Your task to perform on an android device: turn notification dots on Image 0: 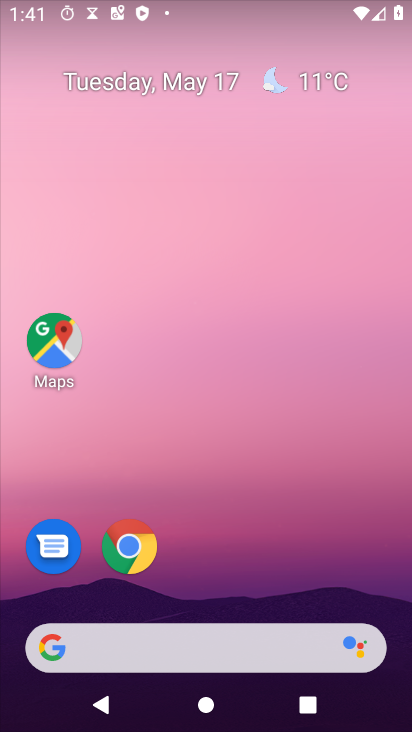
Step 0: press home button
Your task to perform on an android device: turn notification dots on Image 1: 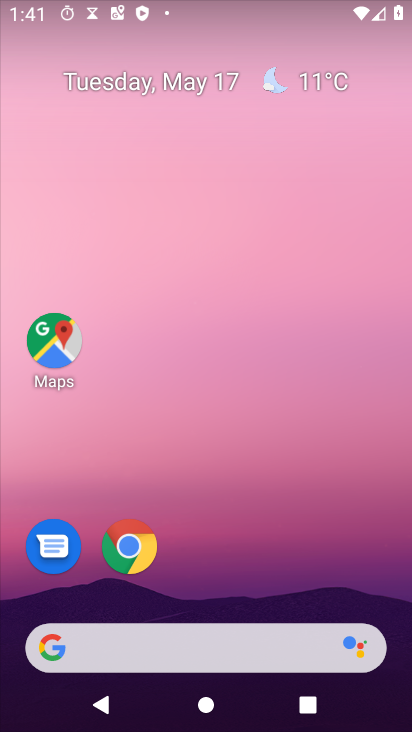
Step 1: drag from (154, 643) to (291, 95)
Your task to perform on an android device: turn notification dots on Image 2: 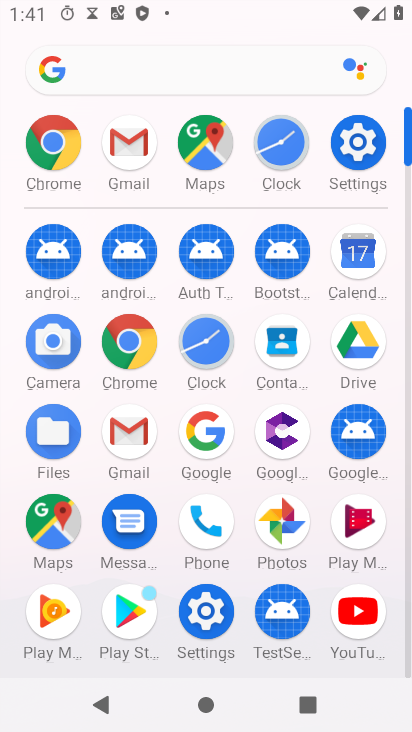
Step 2: click (370, 156)
Your task to perform on an android device: turn notification dots on Image 3: 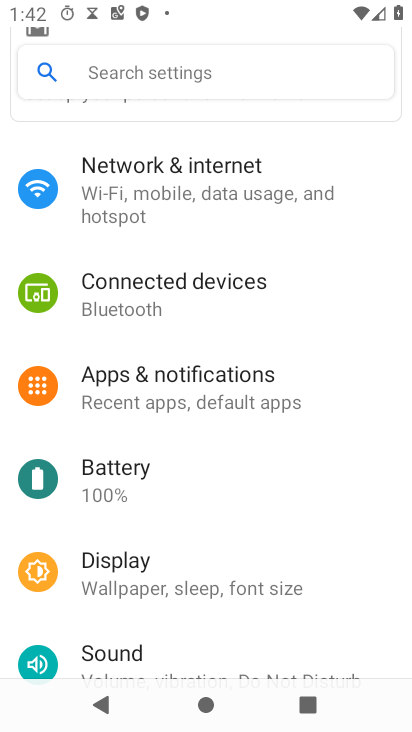
Step 3: click (226, 387)
Your task to perform on an android device: turn notification dots on Image 4: 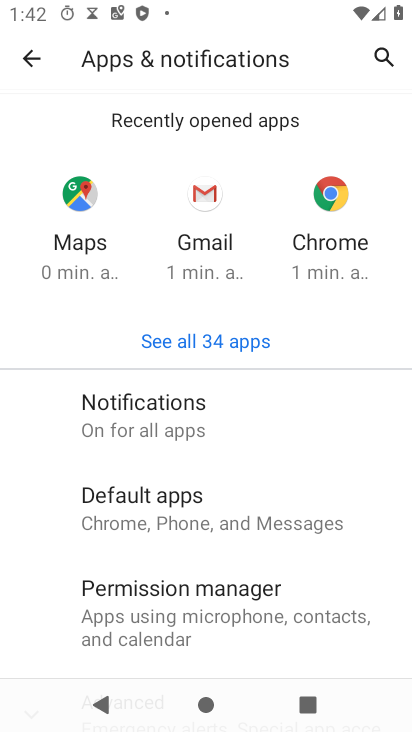
Step 4: click (184, 420)
Your task to perform on an android device: turn notification dots on Image 5: 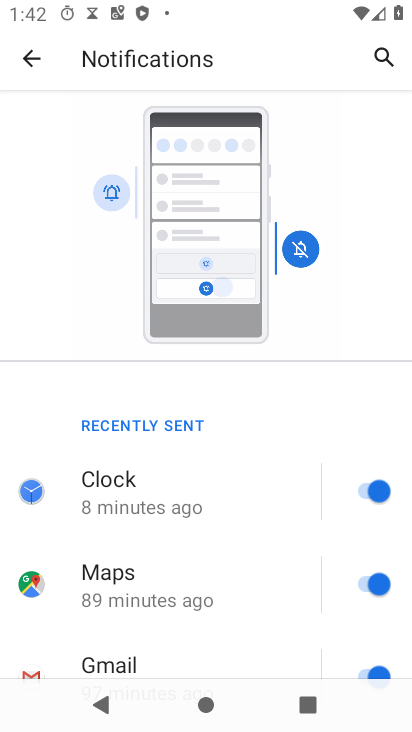
Step 5: drag from (226, 604) to (346, 56)
Your task to perform on an android device: turn notification dots on Image 6: 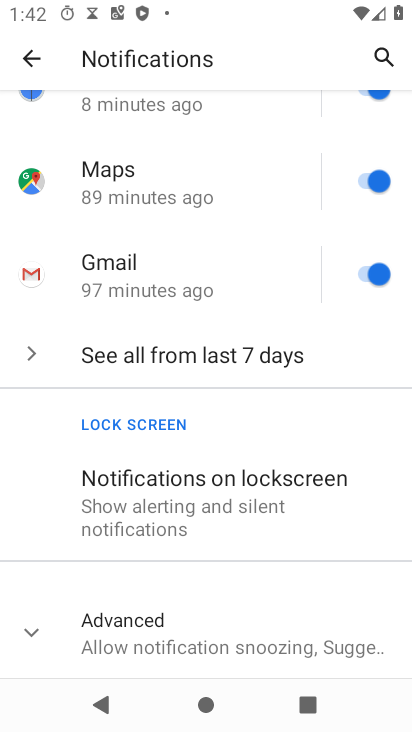
Step 6: click (187, 626)
Your task to perform on an android device: turn notification dots on Image 7: 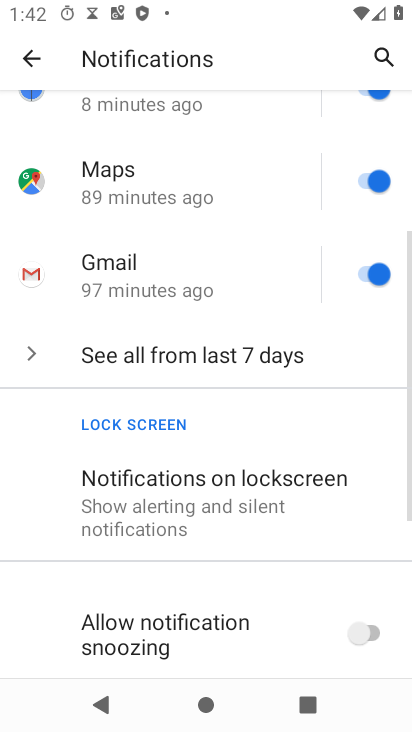
Step 7: task complete